Your task to perform on an android device: See recent photos Image 0: 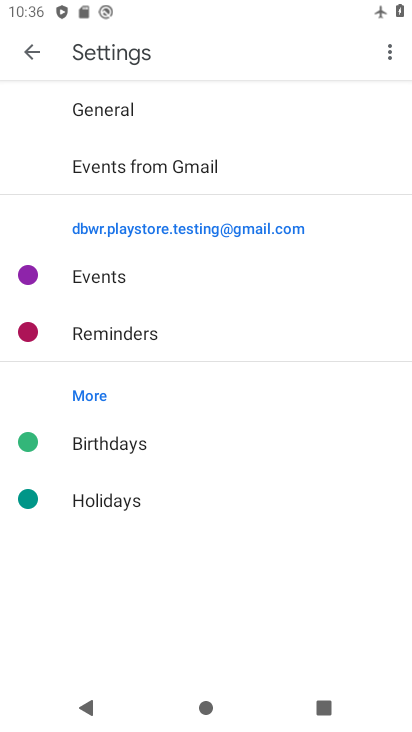
Step 0: press home button
Your task to perform on an android device: See recent photos Image 1: 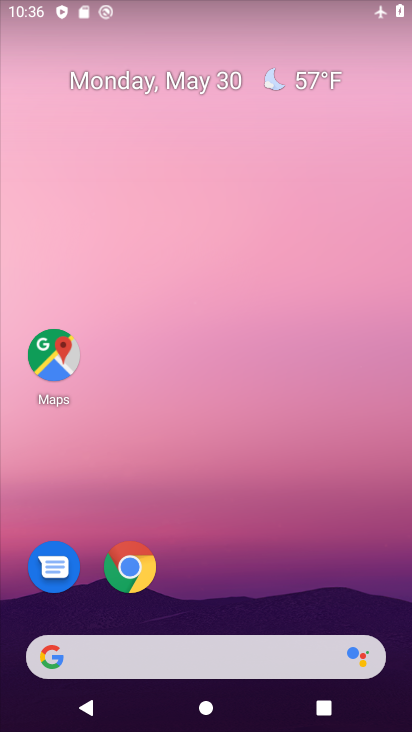
Step 1: drag from (201, 591) to (197, 164)
Your task to perform on an android device: See recent photos Image 2: 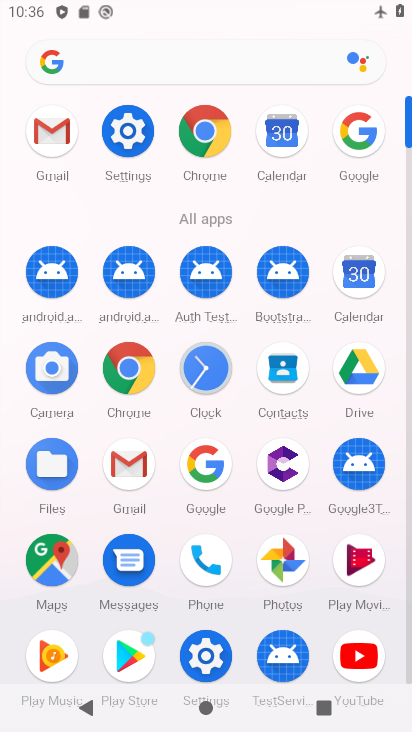
Step 2: click (275, 557)
Your task to perform on an android device: See recent photos Image 3: 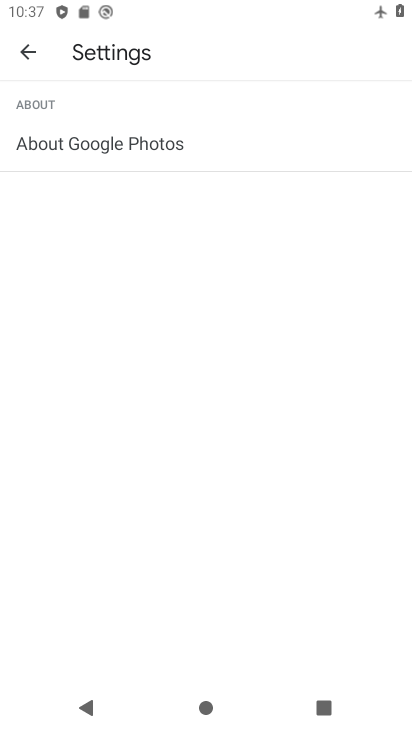
Step 3: press home button
Your task to perform on an android device: See recent photos Image 4: 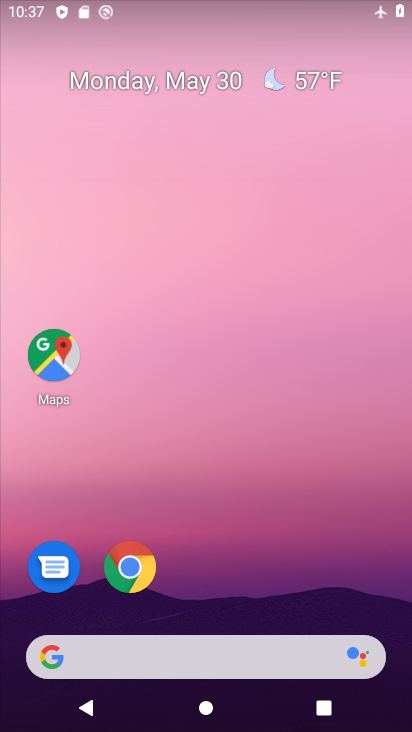
Step 4: drag from (208, 589) to (208, 154)
Your task to perform on an android device: See recent photos Image 5: 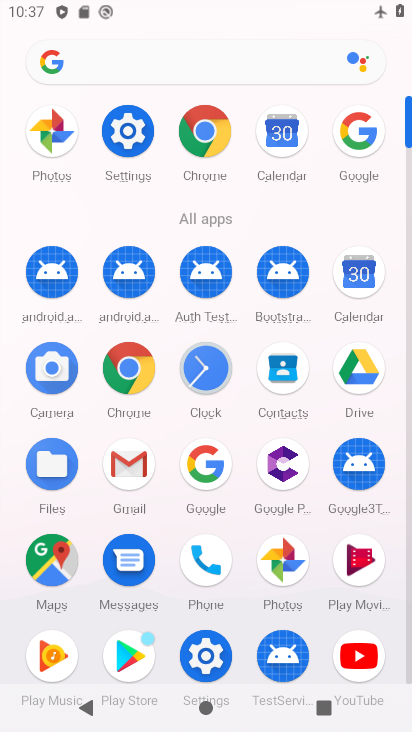
Step 5: click (39, 142)
Your task to perform on an android device: See recent photos Image 6: 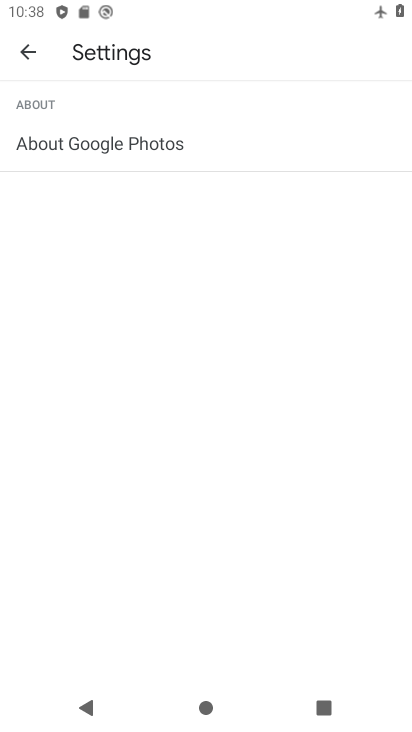
Step 6: click (23, 58)
Your task to perform on an android device: See recent photos Image 7: 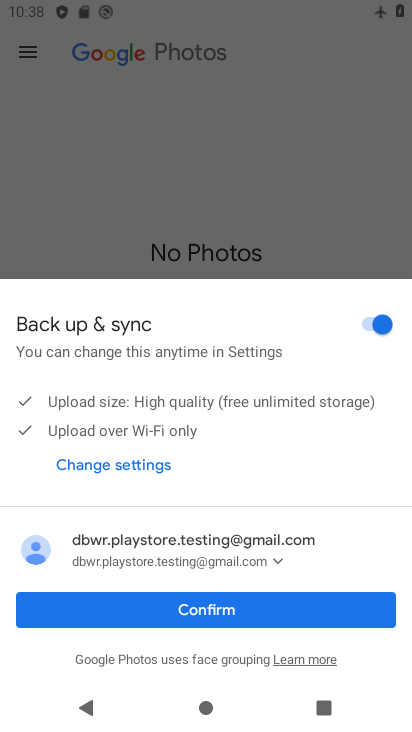
Step 7: click (222, 618)
Your task to perform on an android device: See recent photos Image 8: 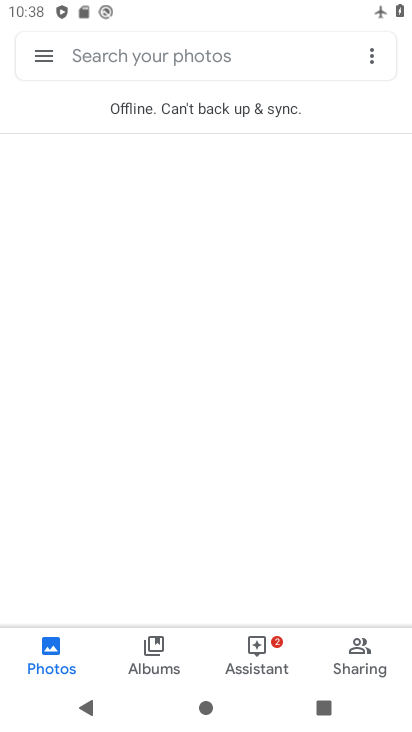
Step 8: click (43, 288)
Your task to perform on an android device: See recent photos Image 9: 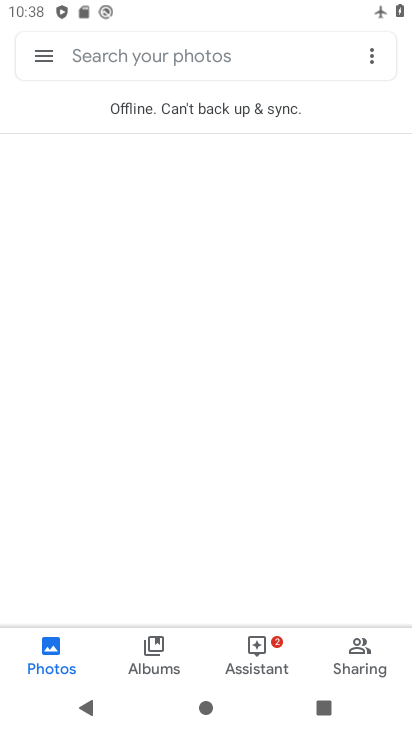
Step 9: task complete